Your task to perform on an android device: delete a single message in the gmail app Image 0: 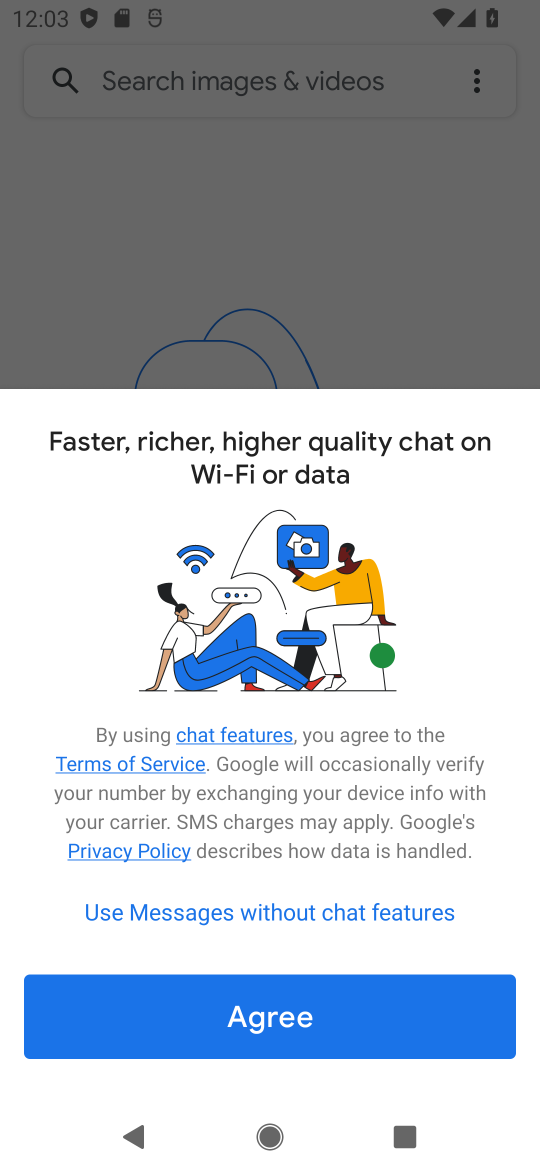
Step 0: press home button
Your task to perform on an android device: delete a single message in the gmail app Image 1: 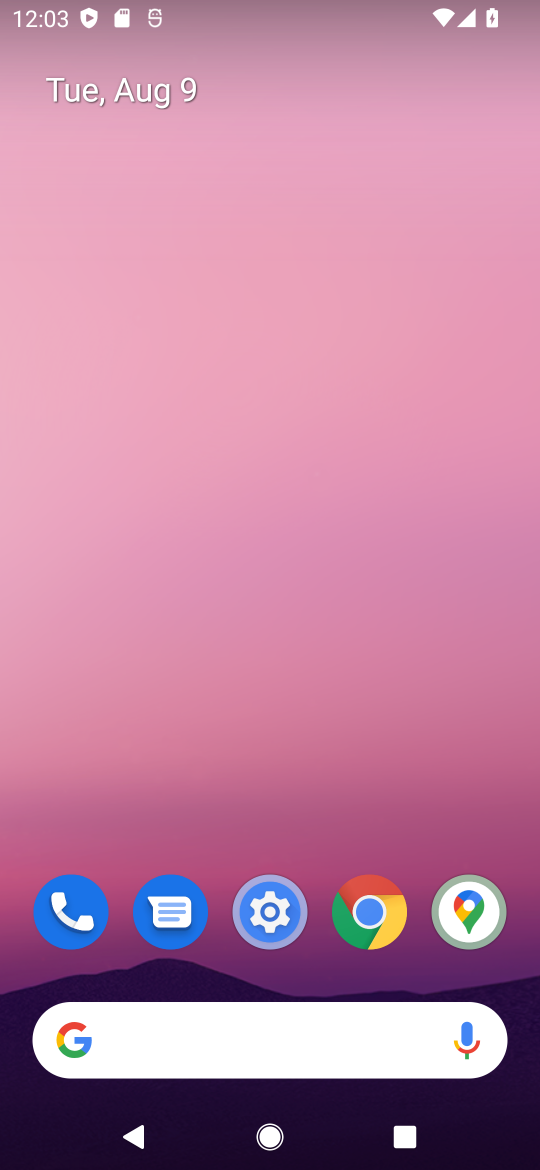
Step 1: drag from (259, 1002) to (253, 393)
Your task to perform on an android device: delete a single message in the gmail app Image 2: 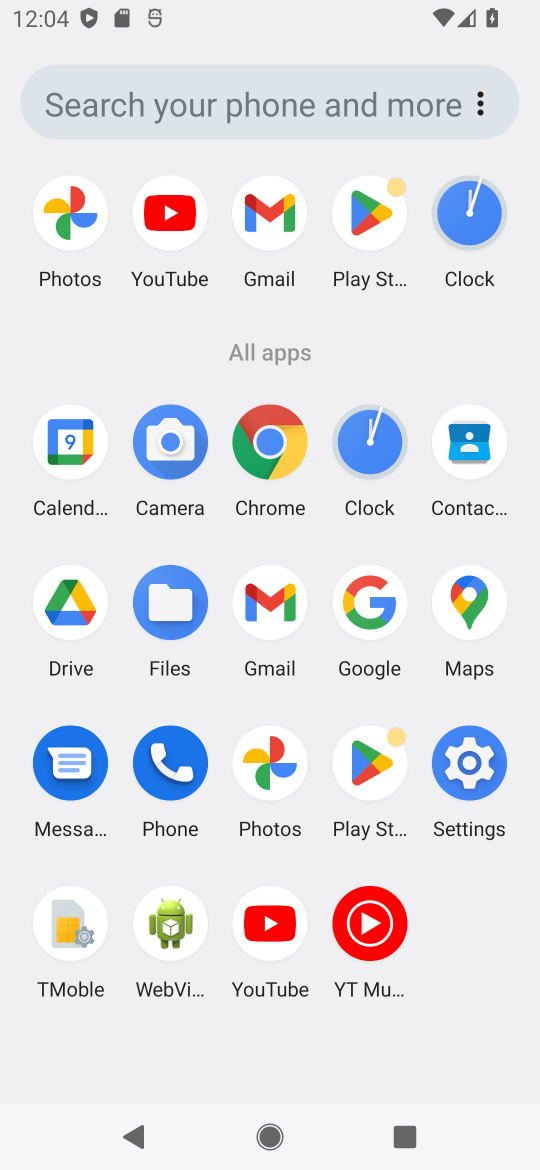
Step 2: click (269, 622)
Your task to perform on an android device: delete a single message in the gmail app Image 3: 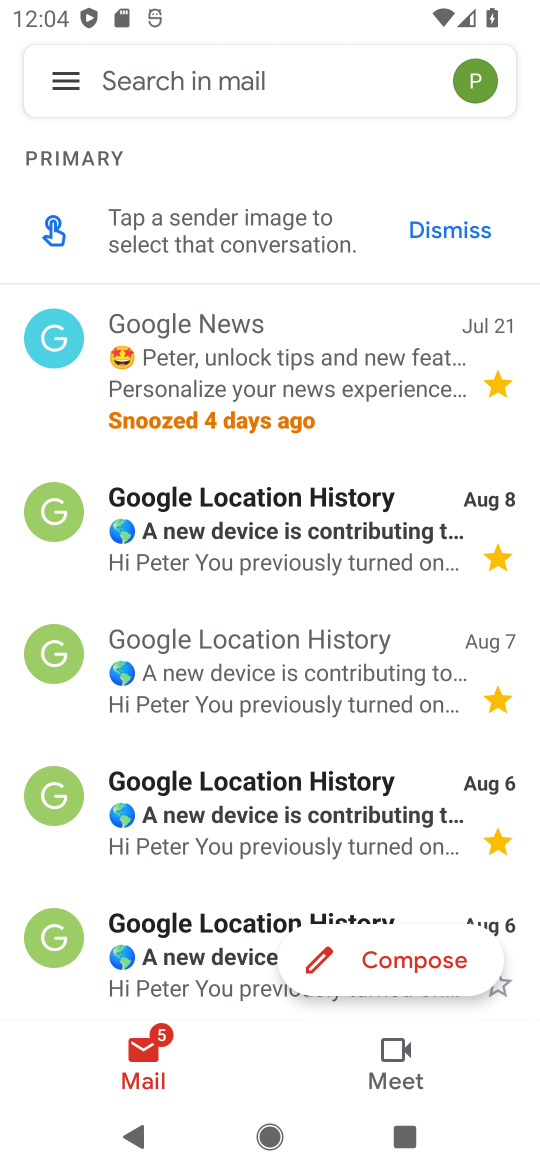
Step 3: click (205, 379)
Your task to perform on an android device: delete a single message in the gmail app Image 4: 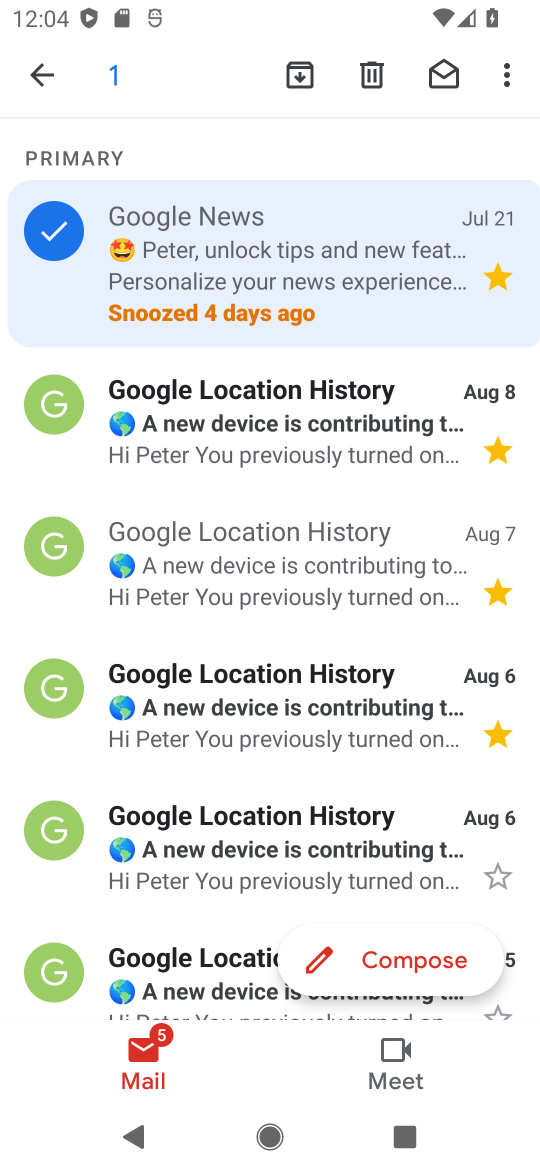
Step 4: click (367, 69)
Your task to perform on an android device: delete a single message in the gmail app Image 5: 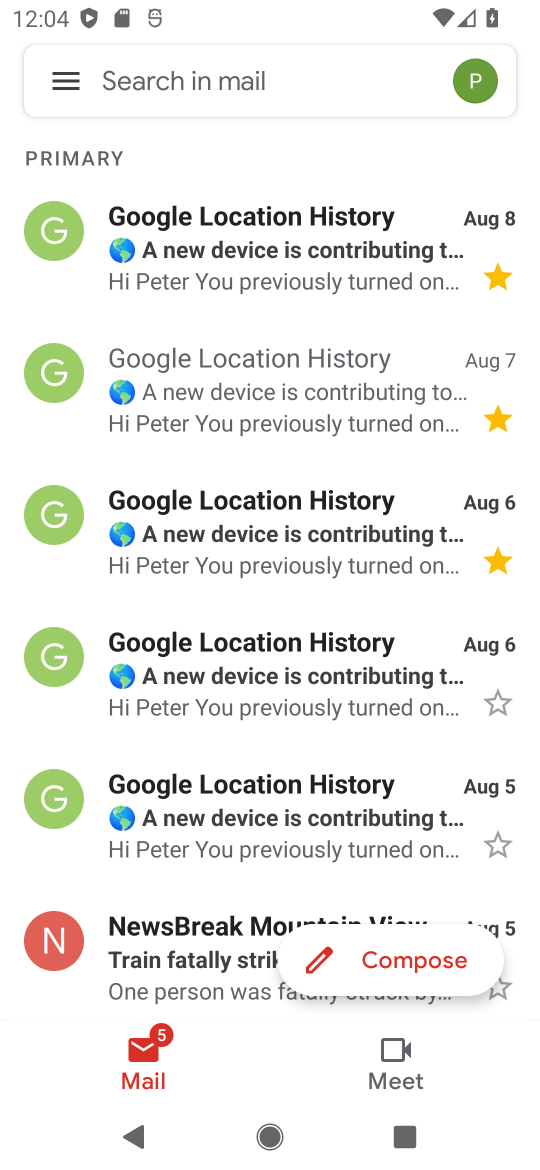
Step 5: task complete